Your task to perform on an android device: Open Android settings Image 0: 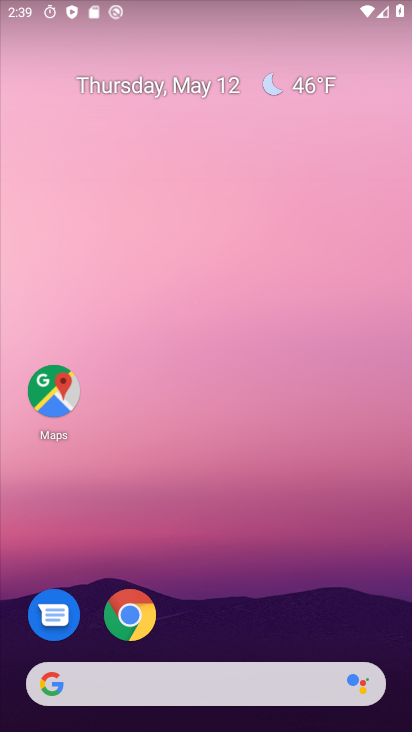
Step 0: drag from (236, 613) to (243, 180)
Your task to perform on an android device: Open Android settings Image 1: 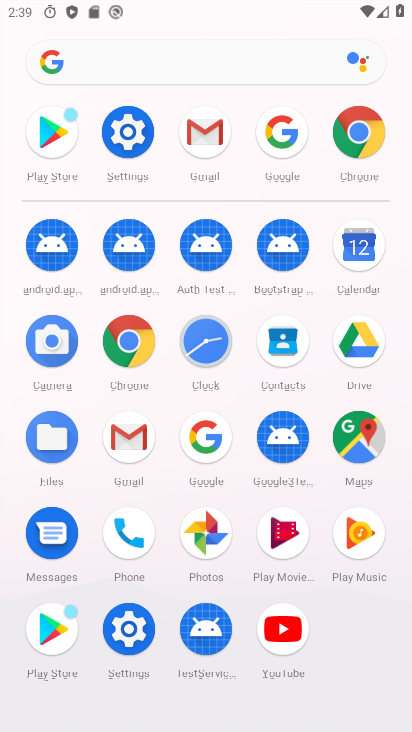
Step 1: click (129, 131)
Your task to perform on an android device: Open Android settings Image 2: 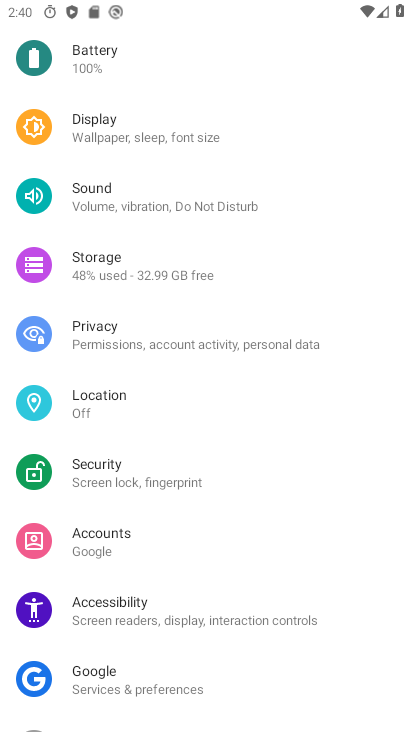
Step 2: task complete